Your task to perform on an android device: turn pop-ups off in chrome Image 0: 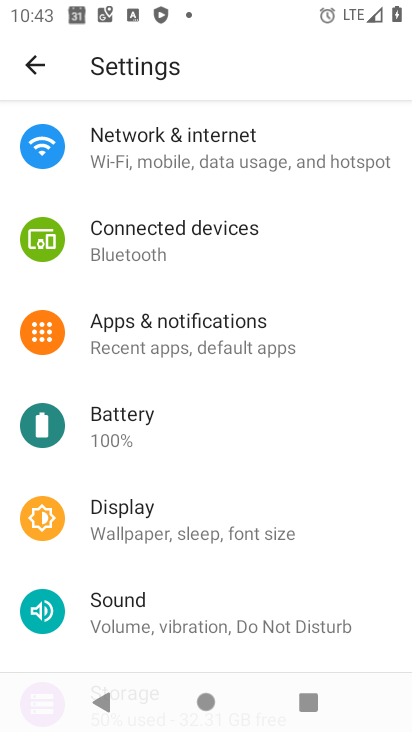
Step 0: press home button
Your task to perform on an android device: turn pop-ups off in chrome Image 1: 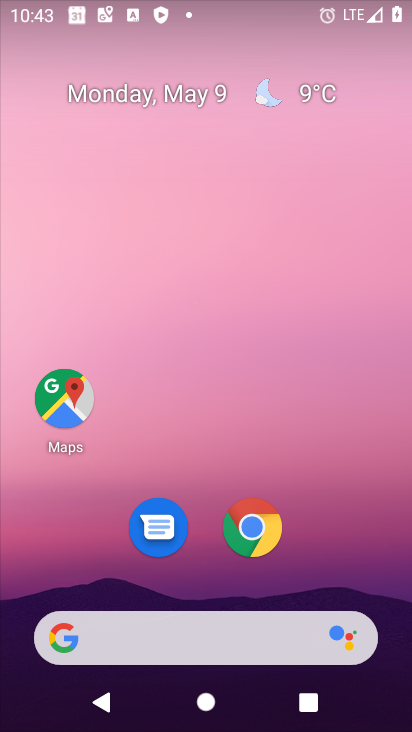
Step 1: click (254, 530)
Your task to perform on an android device: turn pop-ups off in chrome Image 2: 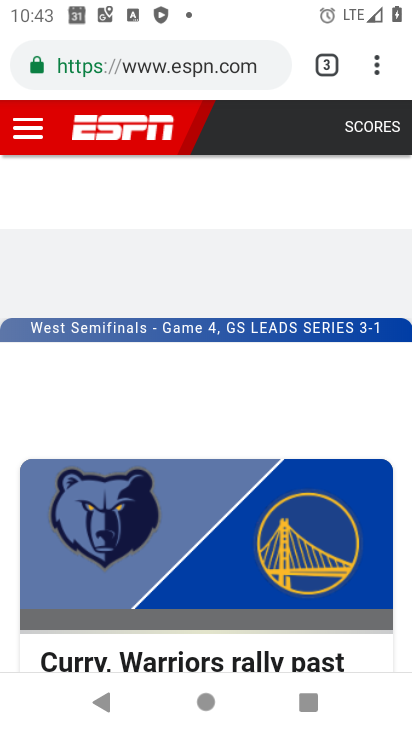
Step 2: click (375, 66)
Your task to perform on an android device: turn pop-ups off in chrome Image 3: 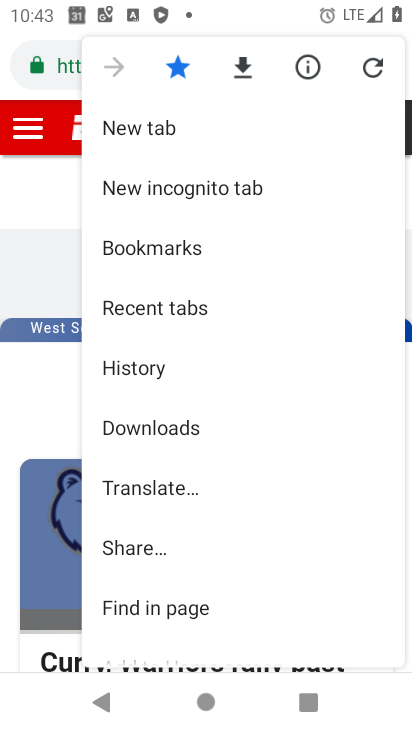
Step 3: drag from (231, 562) to (265, 222)
Your task to perform on an android device: turn pop-ups off in chrome Image 4: 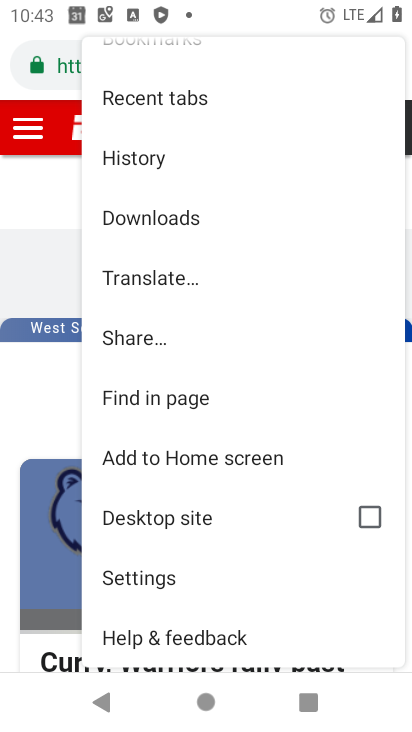
Step 4: click (144, 577)
Your task to perform on an android device: turn pop-ups off in chrome Image 5: 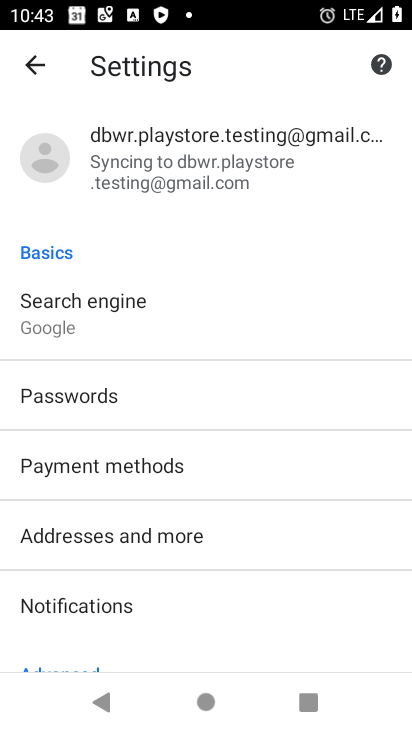
Step 5: drag from (214, 625) to (272, 205)
Your task to perform on an android device: turn pop-ups off in chrome Image 6: 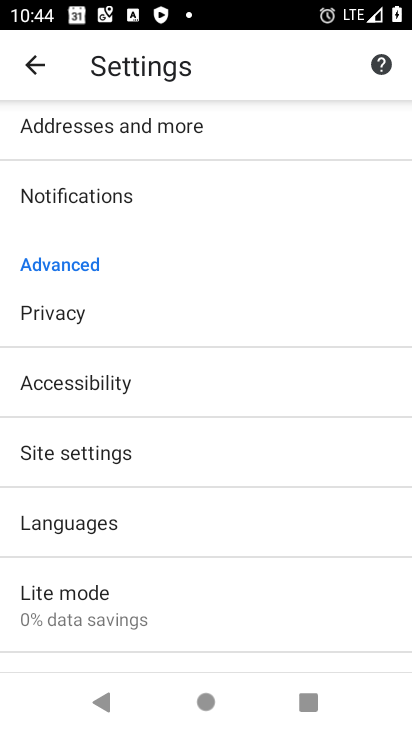
Step 6: click (54, 449)
Your task to perform on an android device: turn pop-ups off in chrome Image 7: 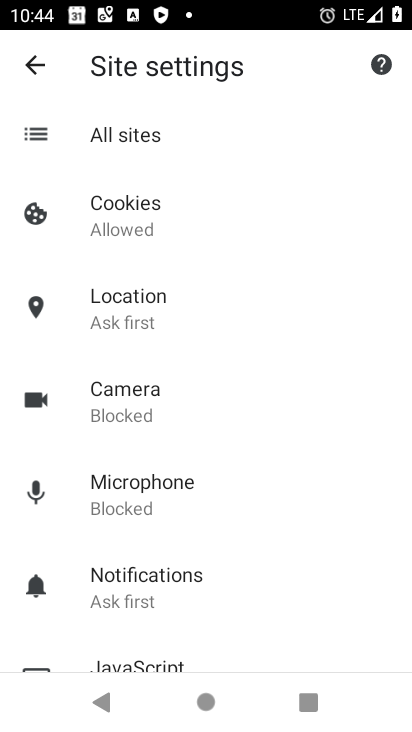
Step 7: drag from (253, 627) to (243, 206)
Your task to perform on an android device: turn pop-ups off in chrome Image 8: 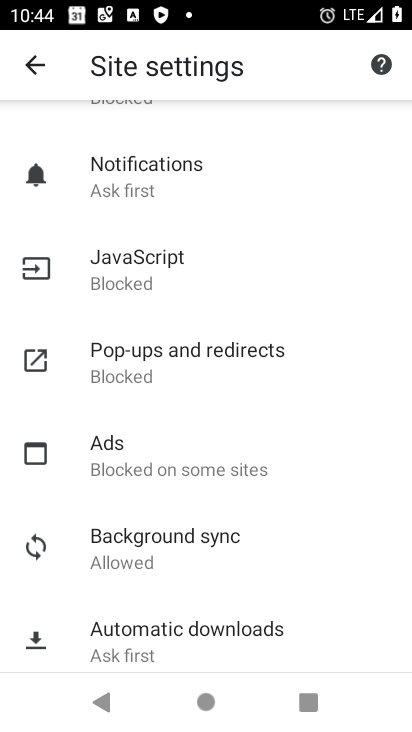
Step 8: click (109, 364)
Your task to perform on an android device: turn pop-ups off in chrome Image 9: 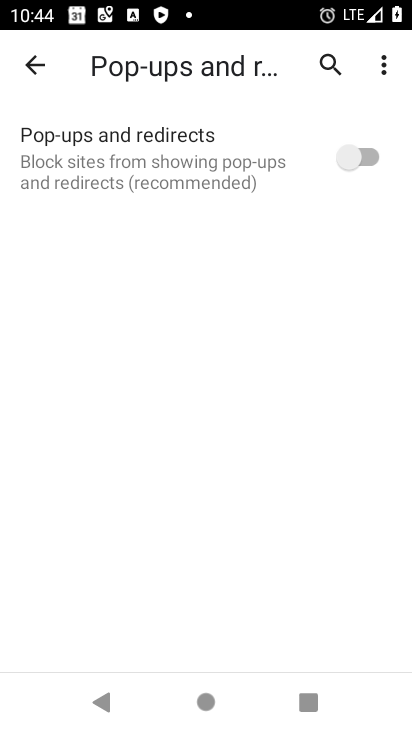
Step 9: task complete